Your task to perform on an android device: turn on wifi Image 0: 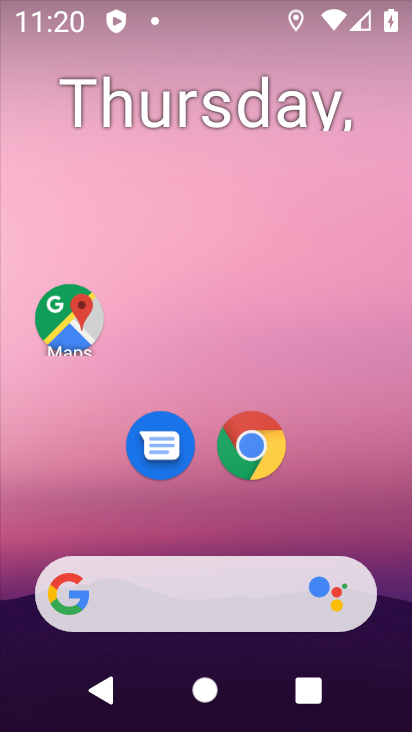
Step 0: drag from (378, 549) to (279, 91)
Your task to perform on an android device: turn on wifi Image 1: 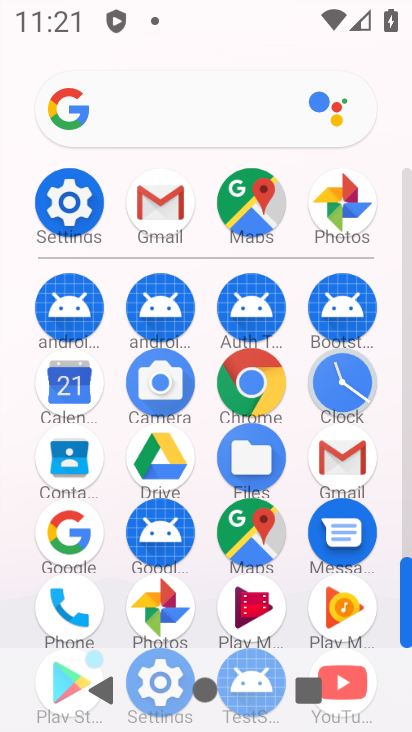
Step 1: drag from (201, 3) to (175, 515)
Your task to perform on an android device: turn on wifi Image 2: 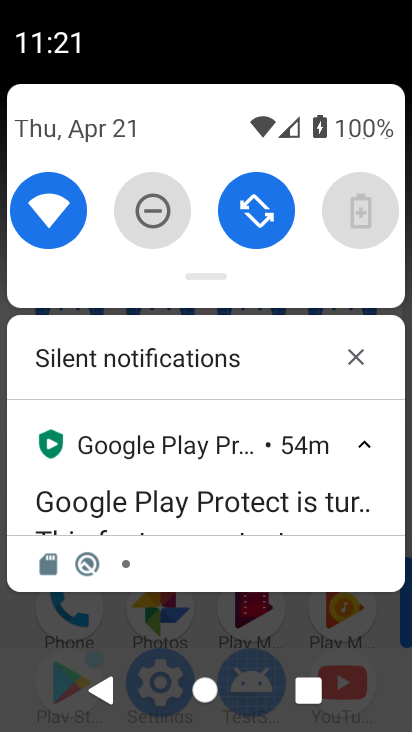
Step 2: click (46, 202)
Your task to perform on an android device: turn on wifi Image 3: 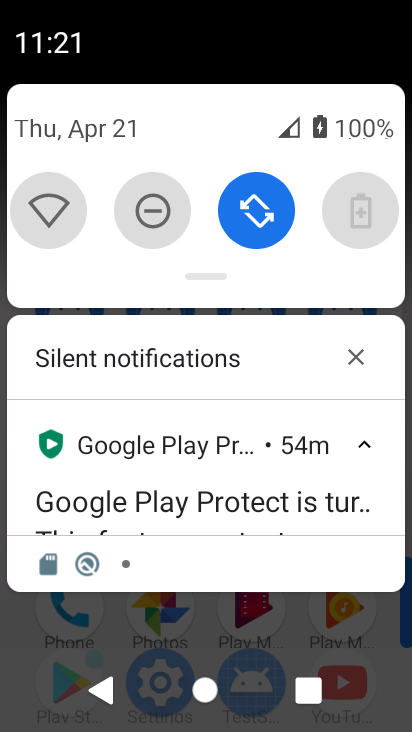
Step 3: click (46, 202)
Your task to perform on an android device: turn on wifi Image 4: 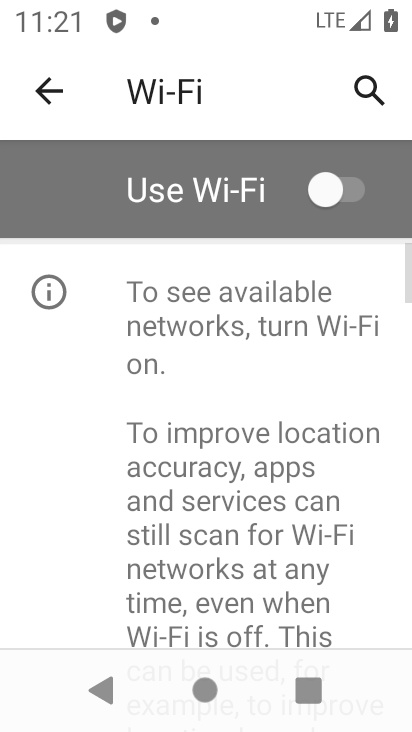
Step 4: click (333, 194)
Your task to perform on an android device: turn on wifi Image 5: 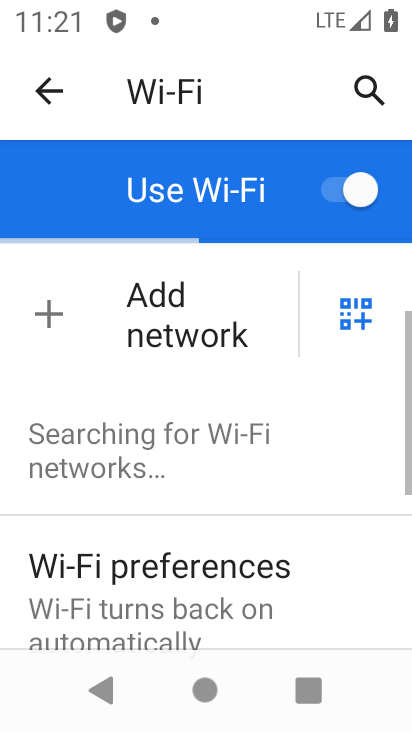
Step 5: task complete